Your task to perform on an android device: Search for Italian restaurants on Maps Image 0: 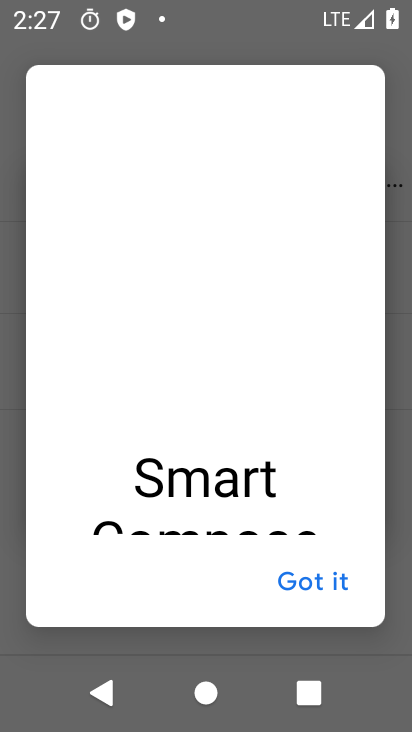
Step 0: press home button
Your task to perform on an android device: Search for Italian restaurants on Maps Image 1: 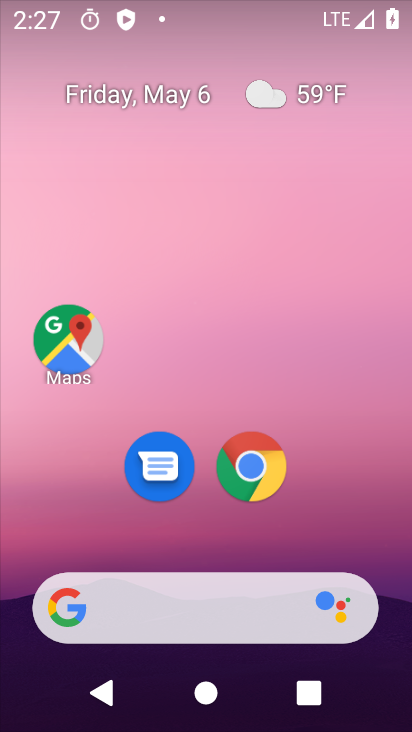
Step 1: click (75, 342)
Your task to perform on an android device: Search for Italian restaurants on Maps Image 2: 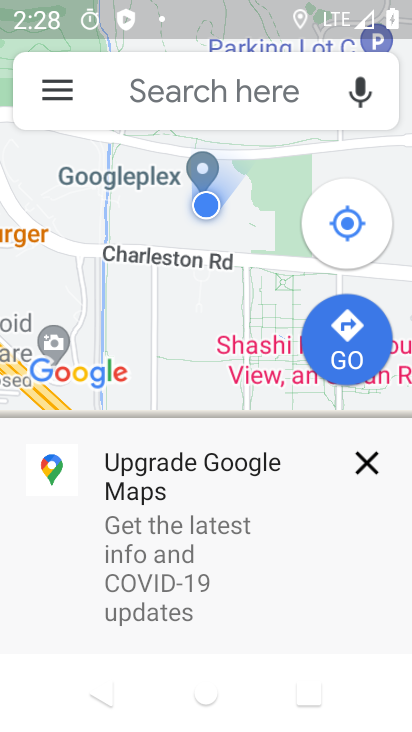
Step 2: click (370, 453)
Your task to perform on an android device: Search for Italian restaurants on Maps Image 3: 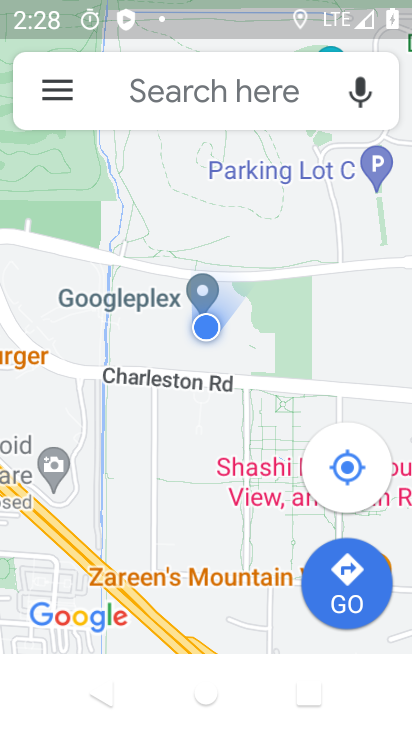
Step 3: click (253, 84)
Your task to perform on an android device: Search for Italian restaurants on Maps Image 4: 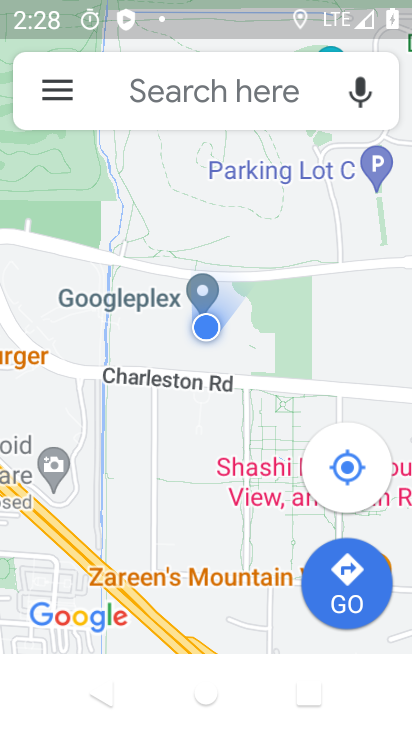
Step 4: click (253, 84)
Your task to perform on an android device: Search for Italian restaurants on Maps Image 5: 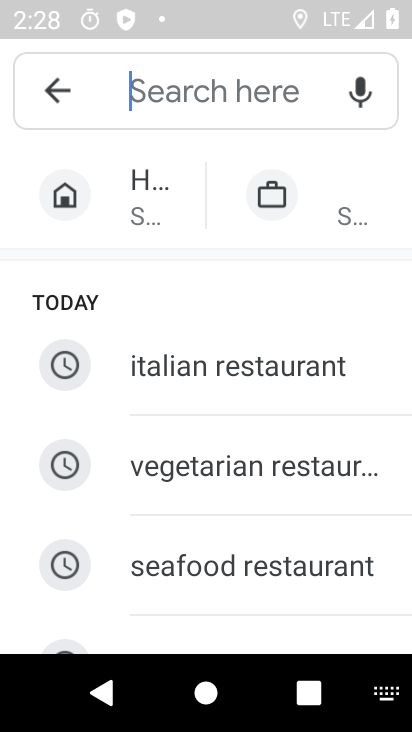
Step 5: type "Italian restaurants"
Your task to perform on an android device: Search for Italian restaurants on Maps Image 6: 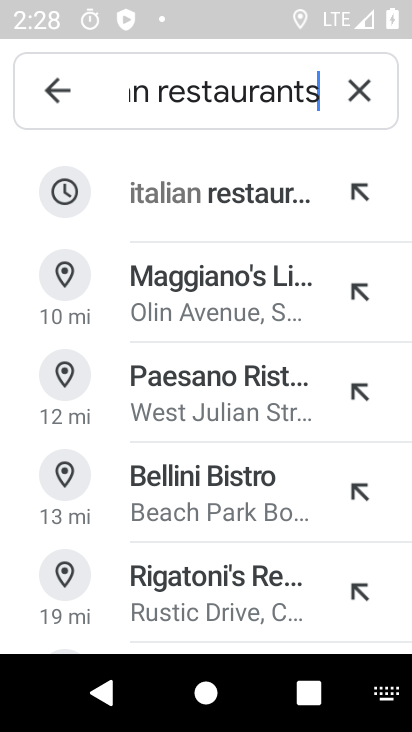
Step 6: press enter
Your task to perform on an android device: Search for Italian restaurants on Maps Image 7: 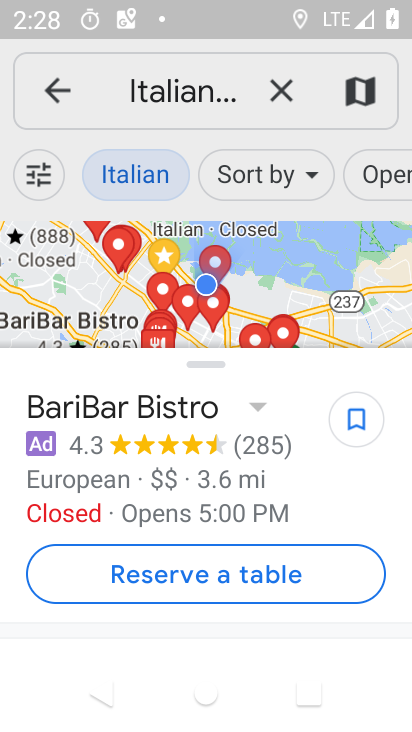
Step 7: task complete